Your task to perform on an android device: Open ESPN.com Image 0: 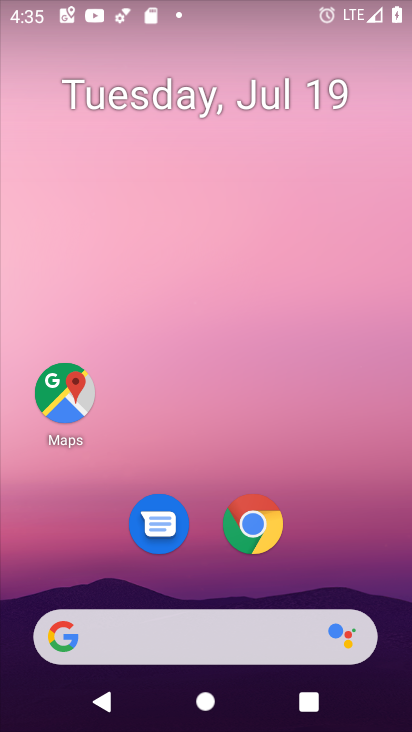
Step 0: click (278, 627)
Your task to perform on an android device: Open ESPN.com Image 1: 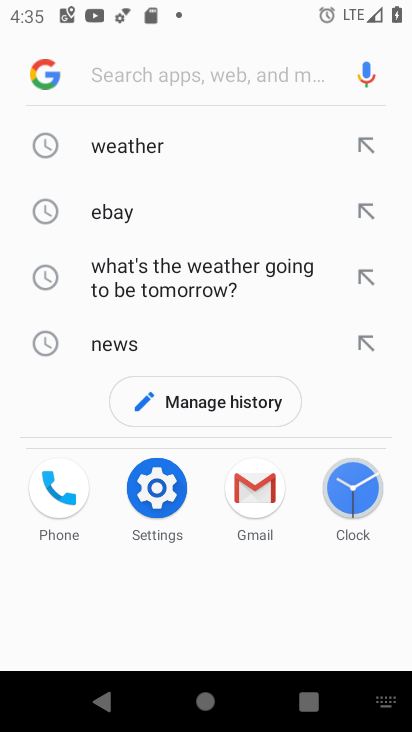
Step 1: type "espn.com"
Your task to perform on an android device: Open ESPN.com Image 2: 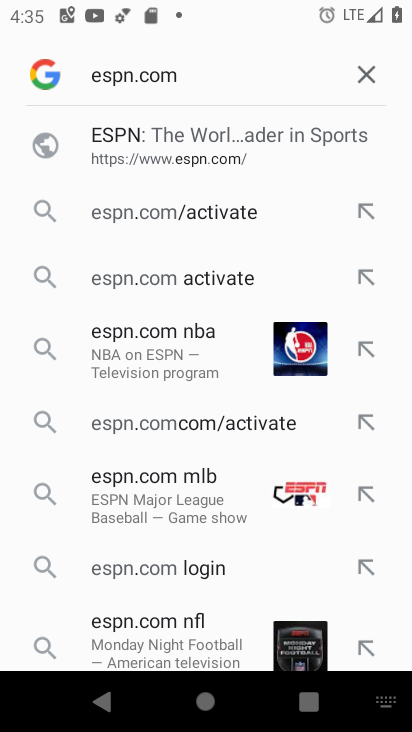
Step 2: click (187, 151)
Your task to perform on an android device: Open ESPN.com Image 3: 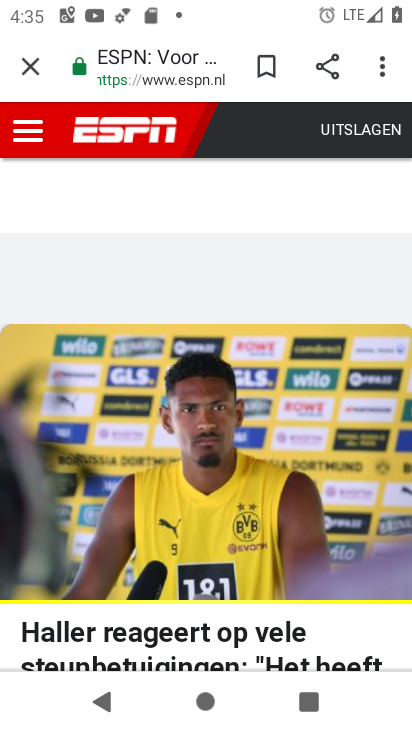
Step 3: drag from (219, 523) to (256, 177)
Your task to perform on an android device: Open ESPN.com Image 4: 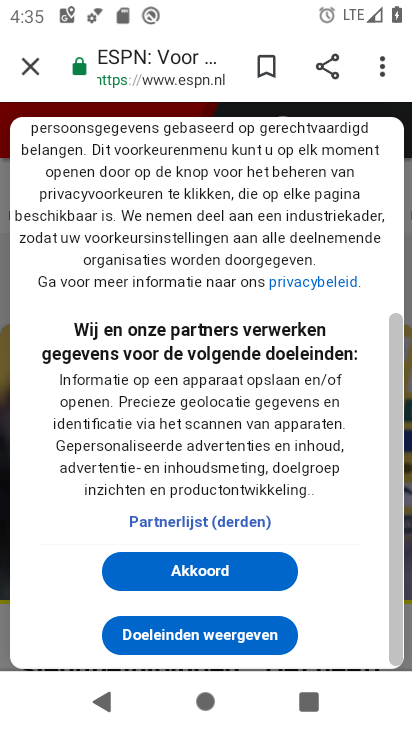
Step 4: drag from (320, 585) to (326, 263)
Your task to perform on an android device: Open ESPN.com Image 5: 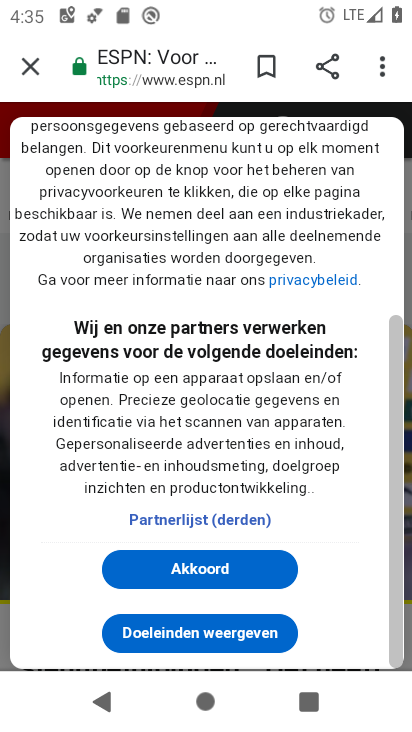
Step 5: drag from (246, 196) to (257, 590)
Your task to perform on an android device: Open ESPN.com Image 6: 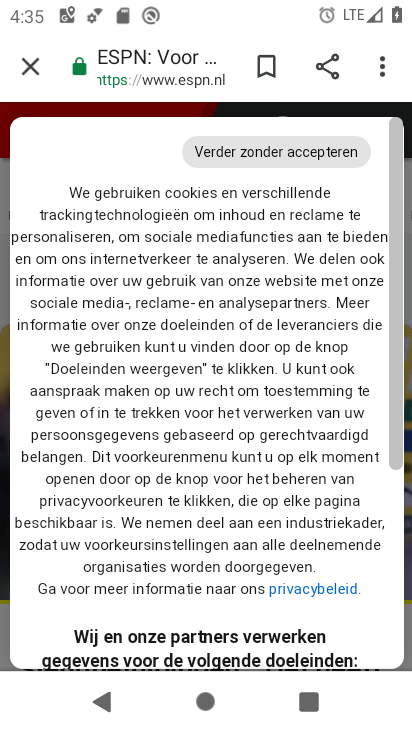
Step 6: drag from (275, 318) to (277, 459)
Your task to perform on an android device: Open ESPN.com Image 7: 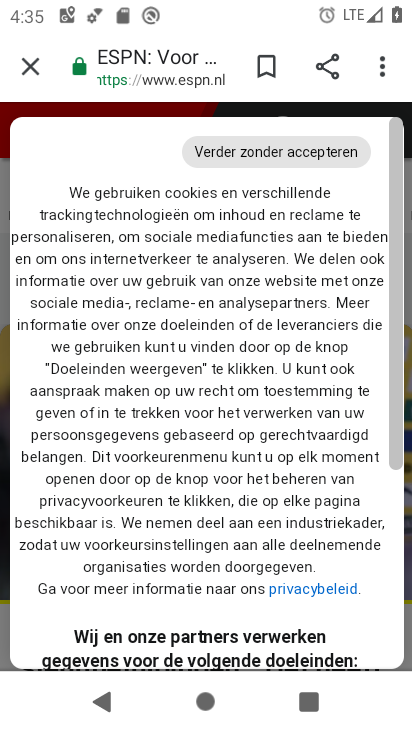
Step 7: click (31, 61)
Your task to perform on an android device: Open ESPN.com Image 8: 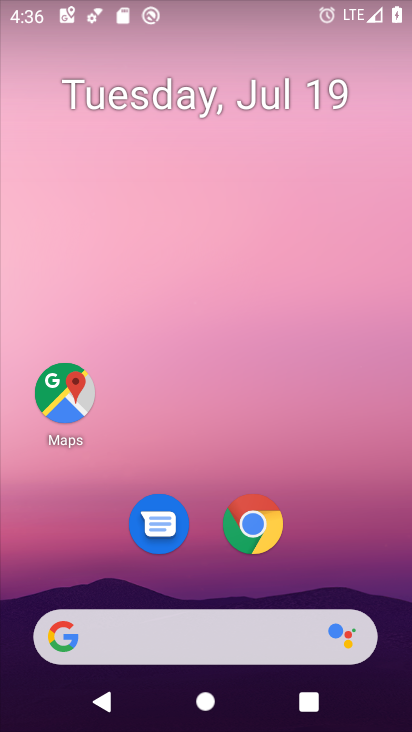
Step 8: click (223, 636)
Your task to perform on an android device: Open ESPN.com Image 9: 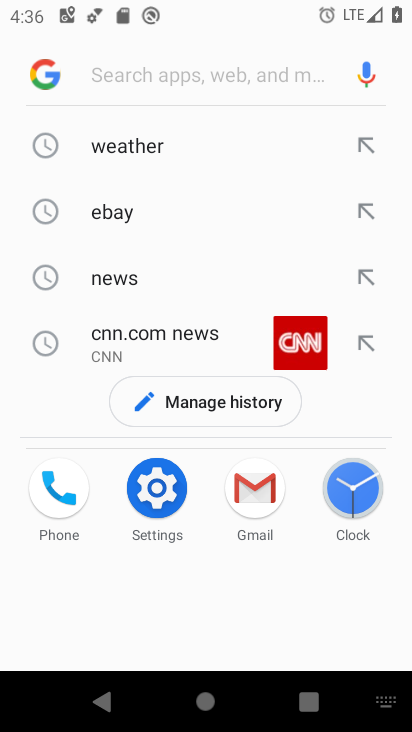
Step 9: type "espn.com"
Your task to perform on an android device: Open ESPN.com Image 10: 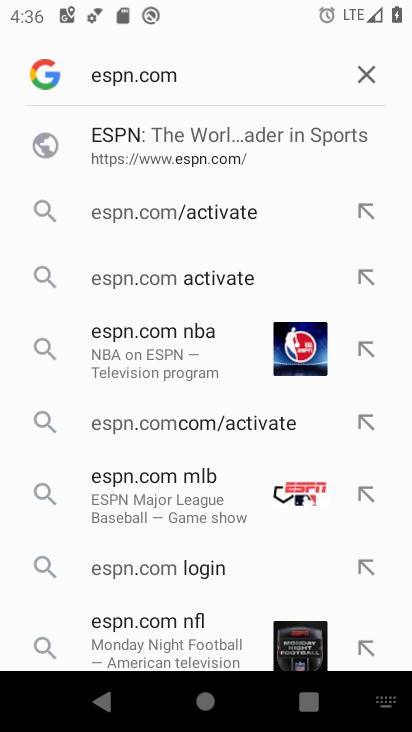
Step 10: click (207, 156)
Your task to perform on an android device: Open ESPN.com Image 11: 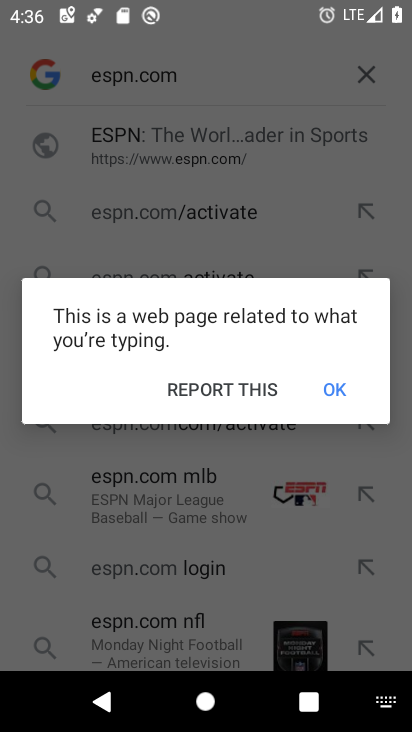
Step 11: click (199, 146)
Your task to perform on an android device: Open ESPN.com Image 12: 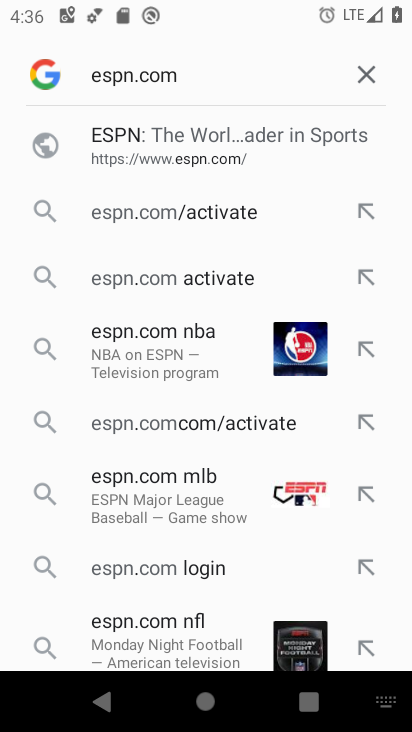
Step 12: click (196, 148)
Your task to perform on an android device: Open ESPN.com Image 13: 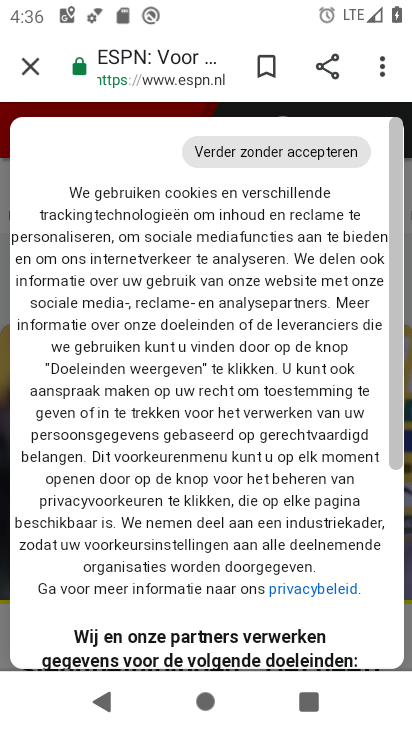
Step 13: click (355, 151)
Your task to perform on an android device: Open ESPN.com Image 14: 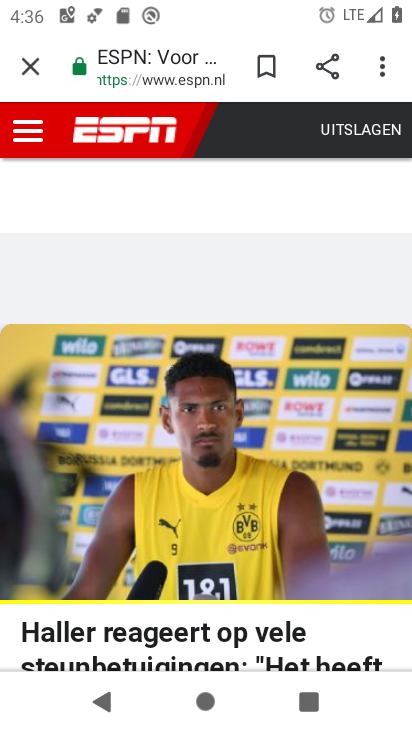
Step 14: task complete